Your task to perform on an android device: open a bookmark in the chrome app Image 0: 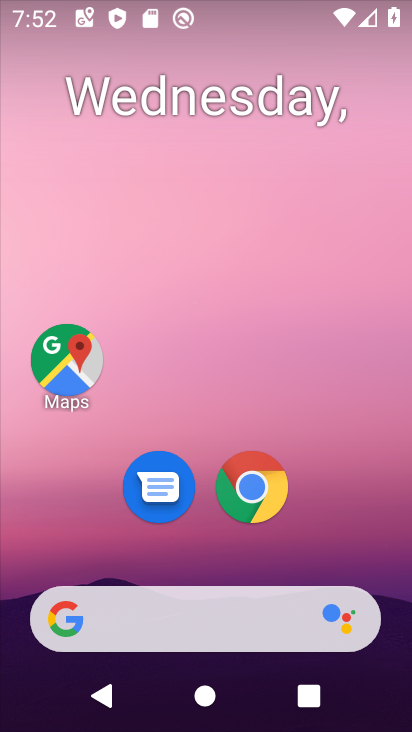
Step 0: drag from (383, 516) to (376, 183)
Your task to perform on an android device: open a bookmark in the chrome app Image 1: 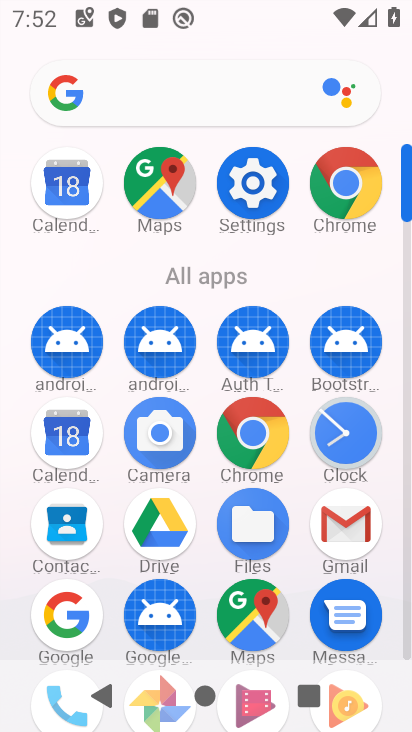
Step 1: click (270, 452)
Your task to perform on an android device: open a bookmark in the chrome app Image 2: 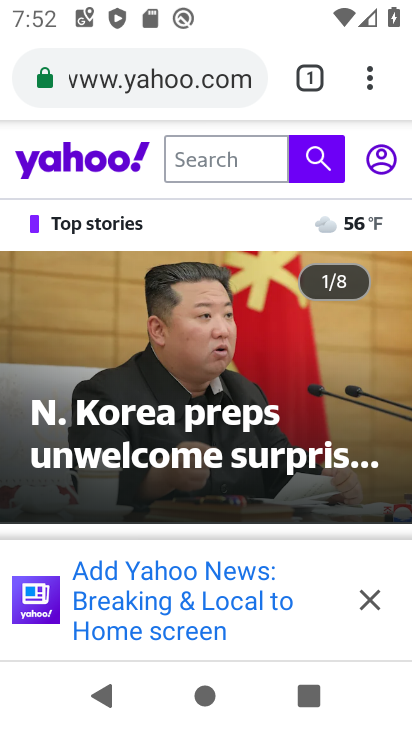
Step 2: click (366, 89)
Your task to perform on an android device: open a bookmark in the chrome app Image 3: 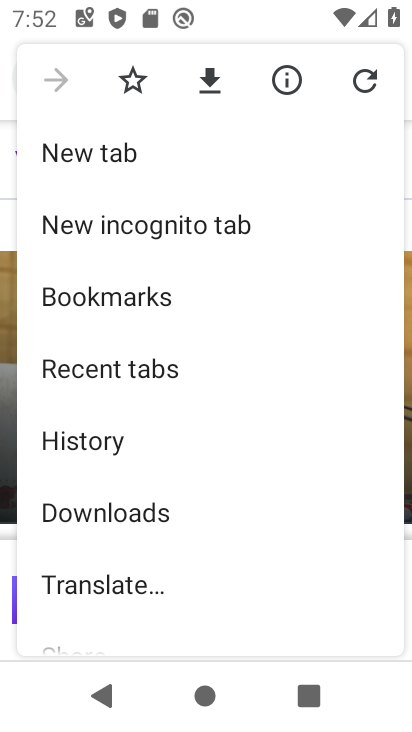
Step 3: drag from (309, 560) to (323, 475)
Your task to perform on an android device: open a bookmark in the chrome app Image 4: 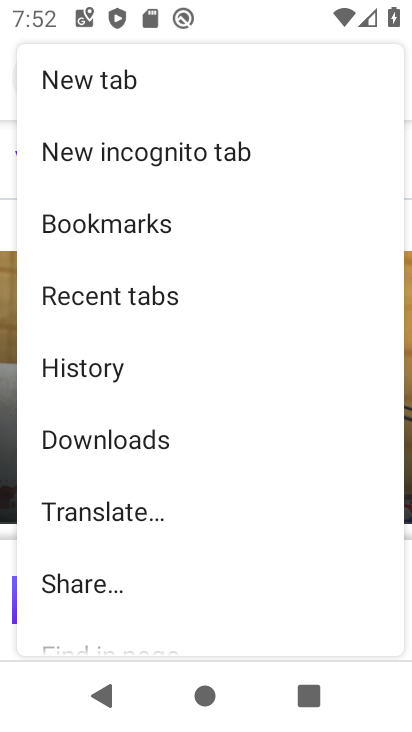
Step 4: drag from (328, 583) to (341, 480)
Your task to perform on an android device: open a bookmark in the chrome app Image 5: 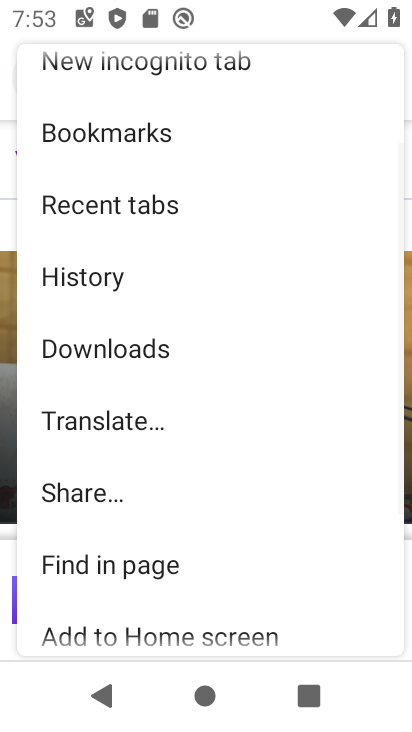
Step 5: drag from (340, 557) to (345, 469)
Your task to perform on an android device: open a bookmark in the chrome app Image 6: 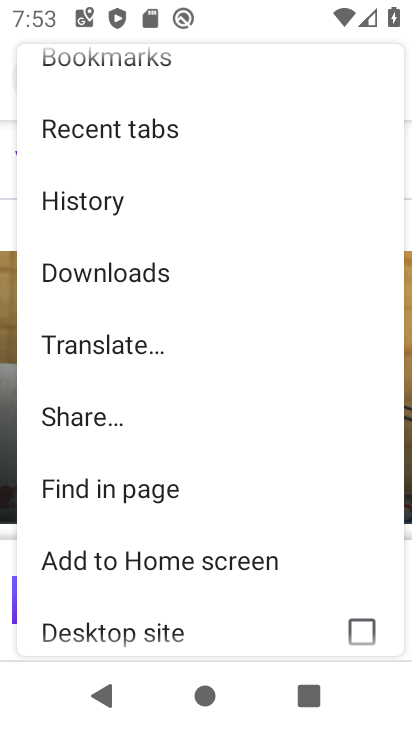
Step 6: drag from (332, 539) to (338, 472)
Your task to perform on an android device: open a bookmark in the chrome app Image 7: 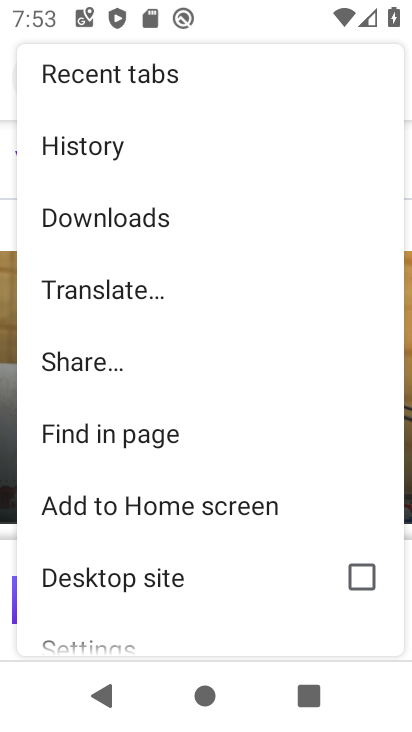
Step 7: drag from (307, 556) to (313, 482)
Your task to perform on an android device: open a bookmark in the chrome app Image 8: 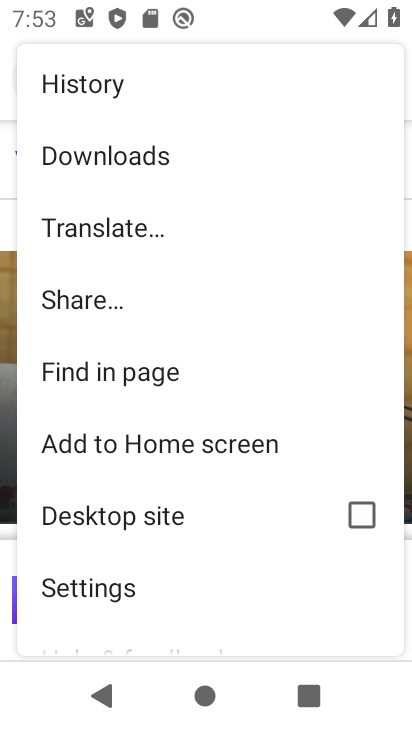
Step 8: drag from (283, 403) to (278, 455)
Your task to perform on an android device: open a bookmark in the chrome app Image 9: 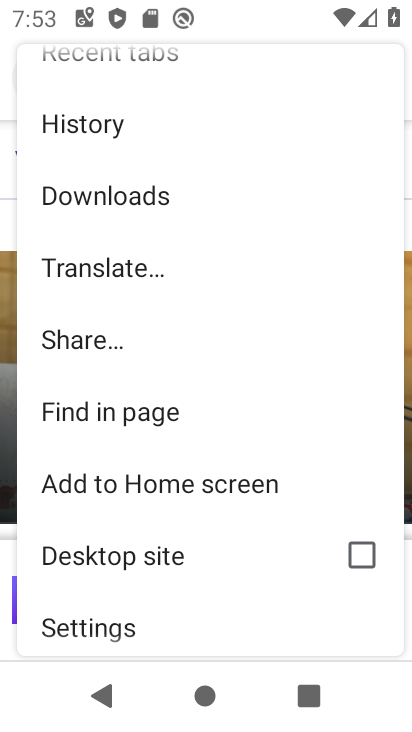
Step 9: click (288, 399)
Your task to perform on an android device: open a bookmark in the chrome app Image 10: 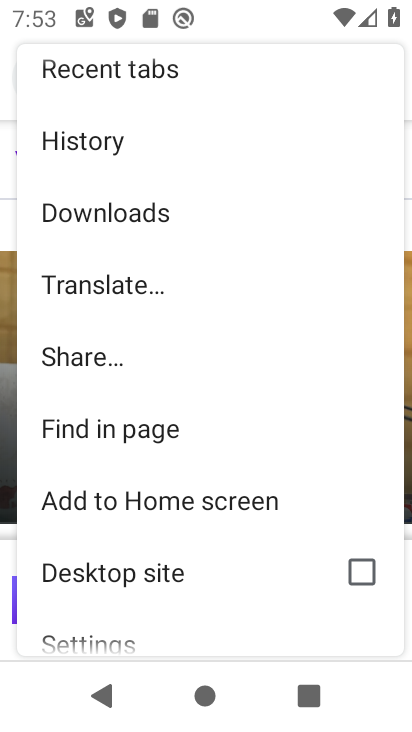
Step 10: drag from (290, 383) to (278, 449)
Your task to perform on an android device: open a bookmark in the chrome app Image 11: 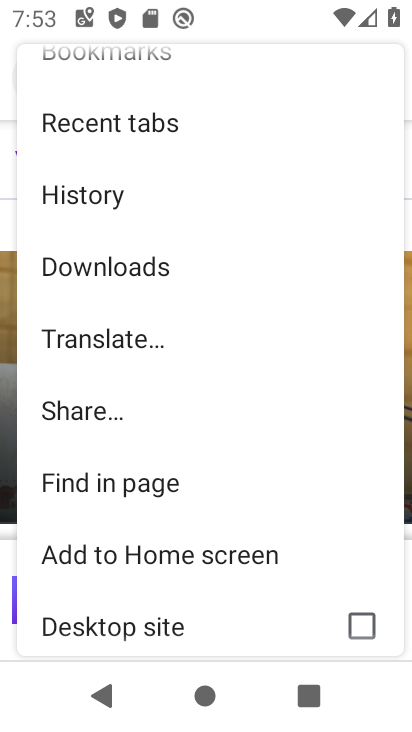
Step 11: click (284, 382)
Your task to perform on an android device: open a bookmark in the chrome app Image 12: 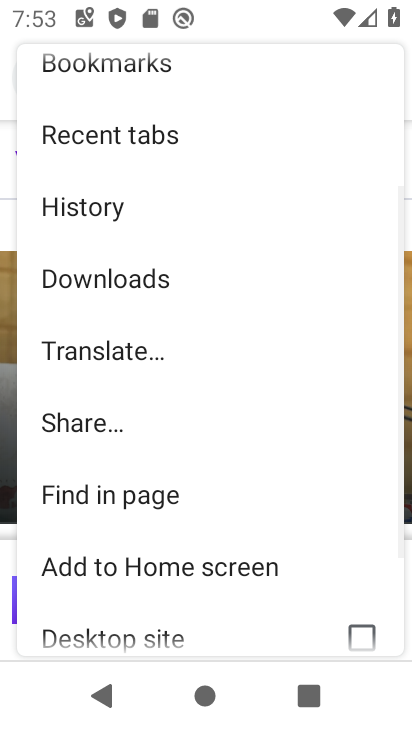
Step 12: drag from (294, 373) to (293, 426)
Your task to perform on an android device: open a bookmark in the chrome app Image 13: 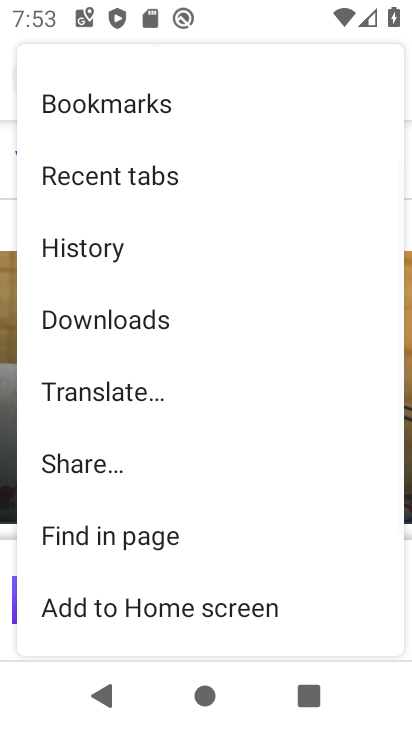
Step 13: drag from (309, 392) to (298, 454)
Your task to perform on an android device: open a bookmark in the chrome app Image 14: 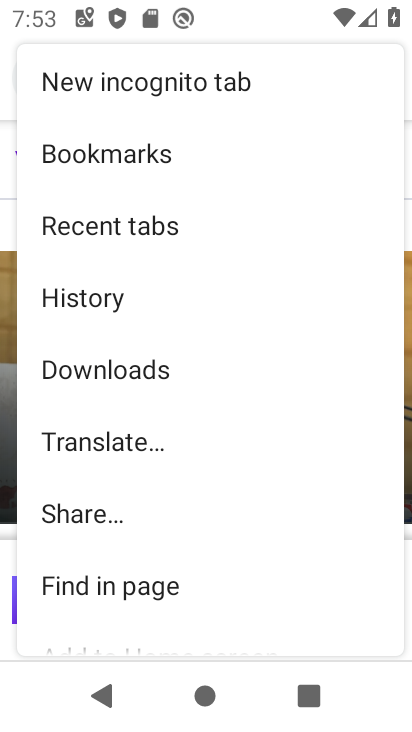
Step 14: drag from (296, 391) to (294, 453)
Your task to perform on an android device: open a bookmark in the chrome app Image 15: 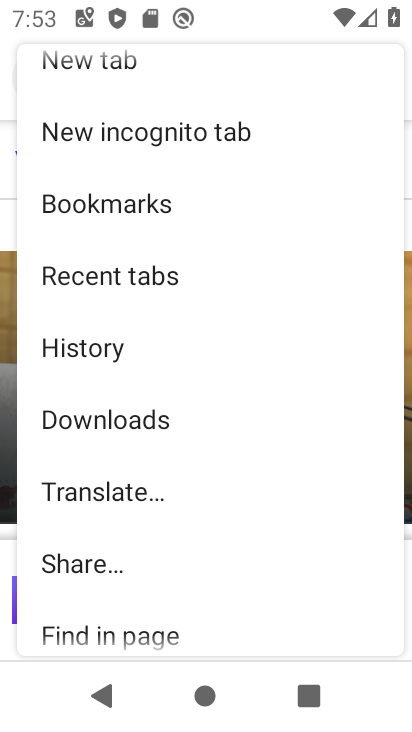
Step 15: drag from (302, 410) to (291, 489)
Your task to perform on an android device: open a bookmark in the chrome app Image 16: 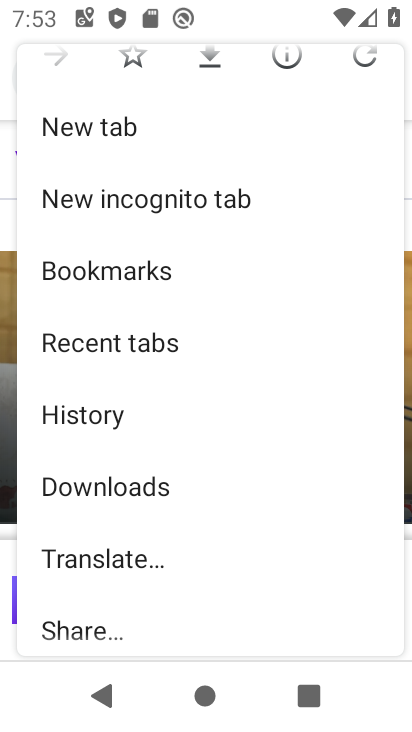
Step 16: click (163, 279)
Your task to perform on an android device: open a bookmark in the chrome app Image 17: 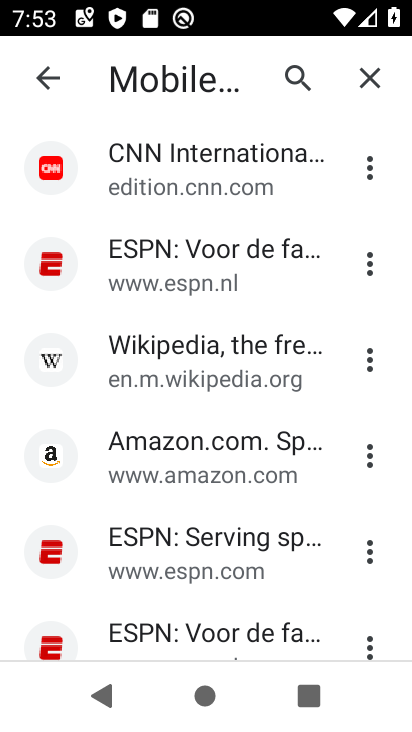
Step 17: click (229, 370)
Your task to perform on an android device: open a bookmark in the chrome app Image 18: 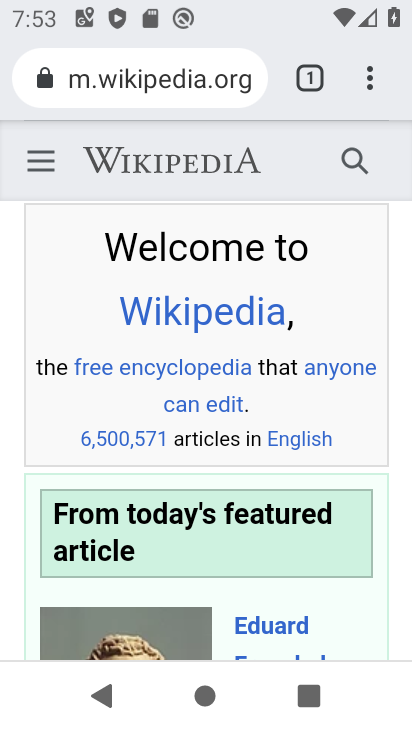
Step 18: task complete